Your task to perform on an android device: set default search engine in the chrome app Image 0: 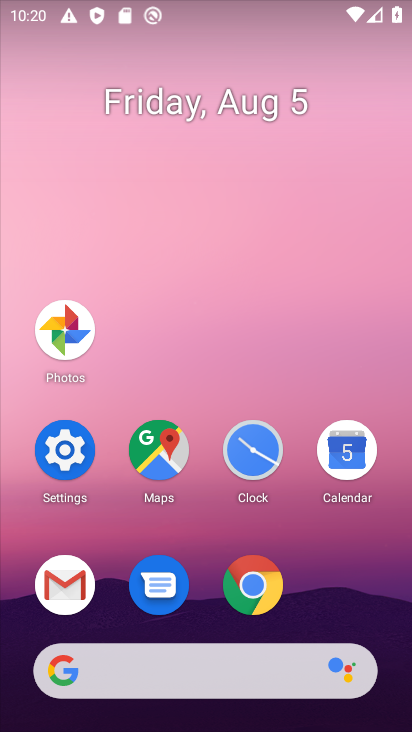
Step 0: click (256, 585)
Your task to perform on an android device: set default search engine in the chrome app Image 1: 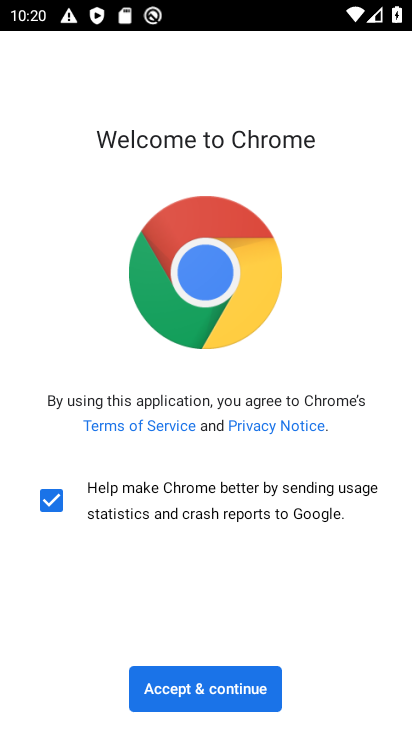
Step 1: click (220, 681)
Your task to perform on an android device: set default search engine in the chrome app Image 2: 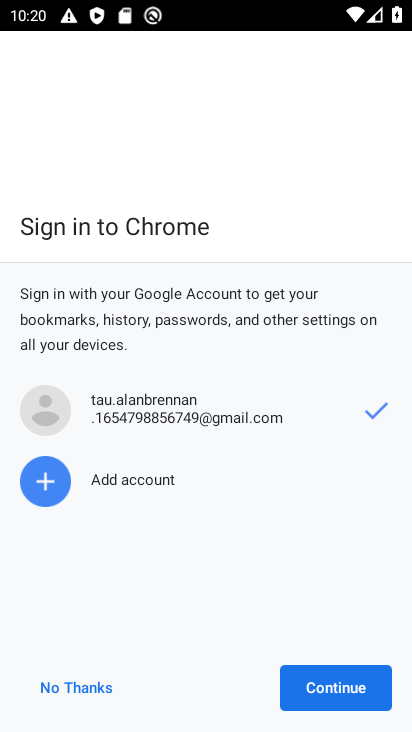
Step 2: click (329, 690)
Your task to perform on an android device: set default search engine in the chrome app Image 3: 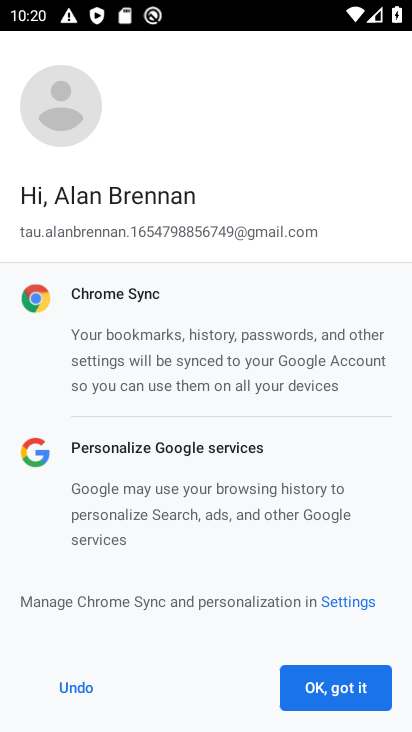
Step 3: click (347, 697)
Your task to perform on an android device: set default search engine in the chrome app Image 4: 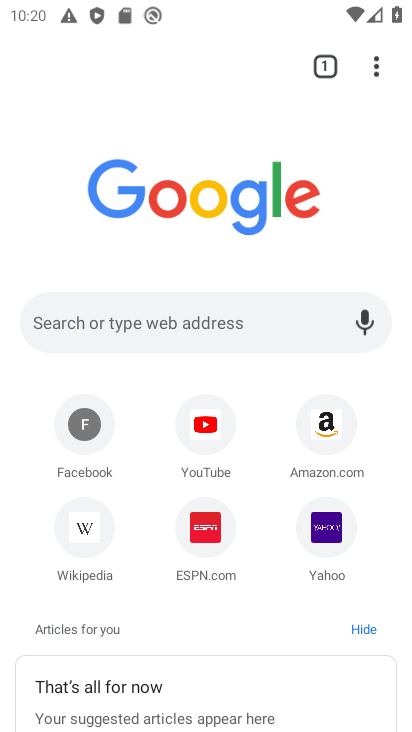
Step 4: click (374, 58)
Your task to perform on an android device: set default search engine in the chrome app Image 5: 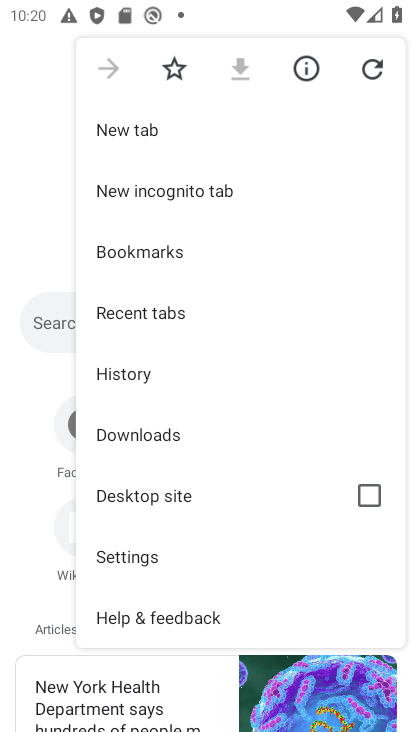
Step 5: click (137, 561)
Your task to perform on an android device: set default search engine in the chrome app Image 6: 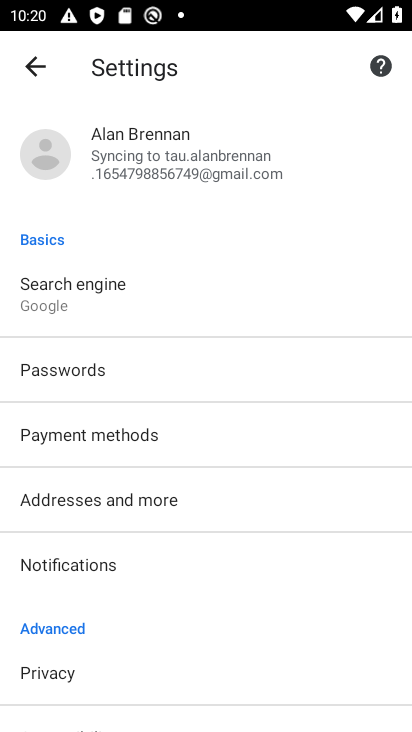
Step 6: click (75, 287)
Your task to perform on an android device: set default search engine in the chrome app Image 7: 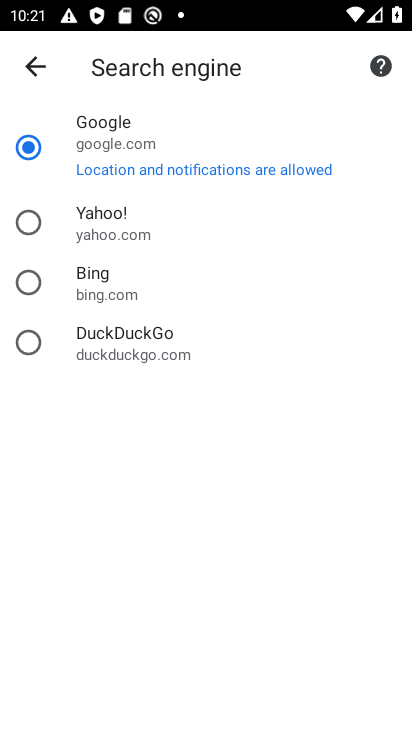
Step 7: task complete